Your task to perform on an android device: See recent photos Image 0: 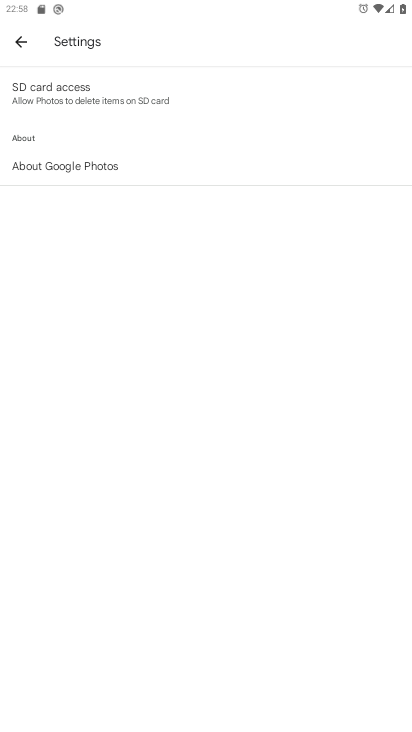
Step 0: press home button
Your task to perform on an android device: See recent photos Image 1: 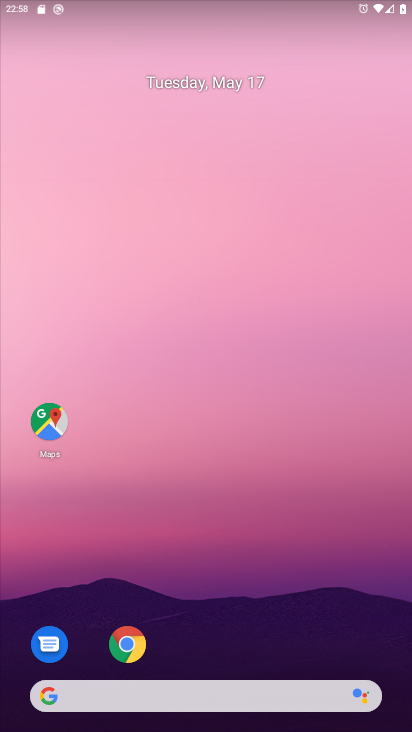
Step 1: drag from (202, 647) to (220, 33)
Your task to perform on an android device: See recent photos Image 2: 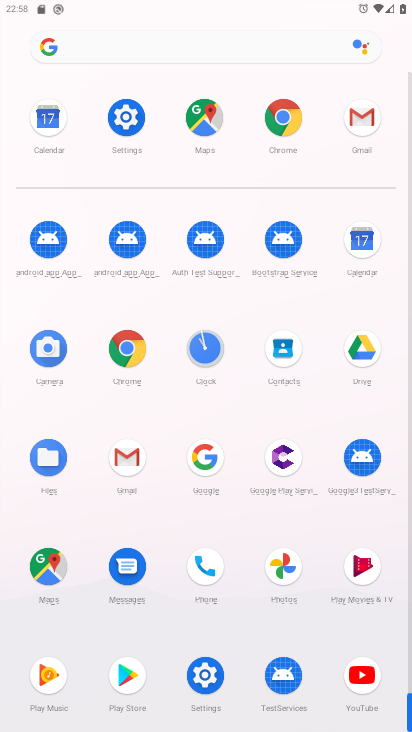
Step 2: click (283, 560)
Your task to perform on an android device: See recent photos Image 3: 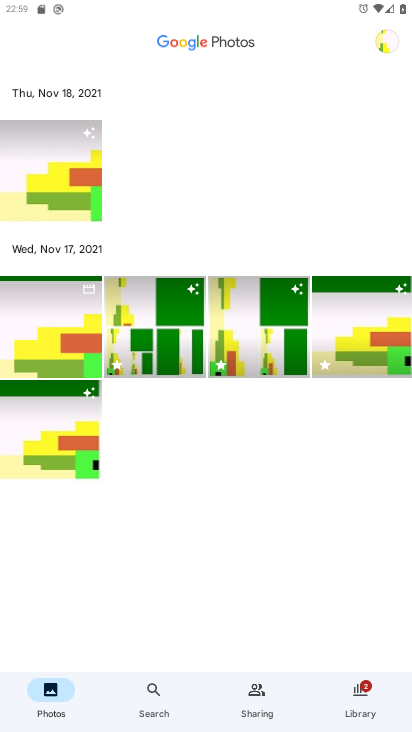
Step 3: task complete